Your task to perform on an android device: see sites visited before in the chrome app Image 0: 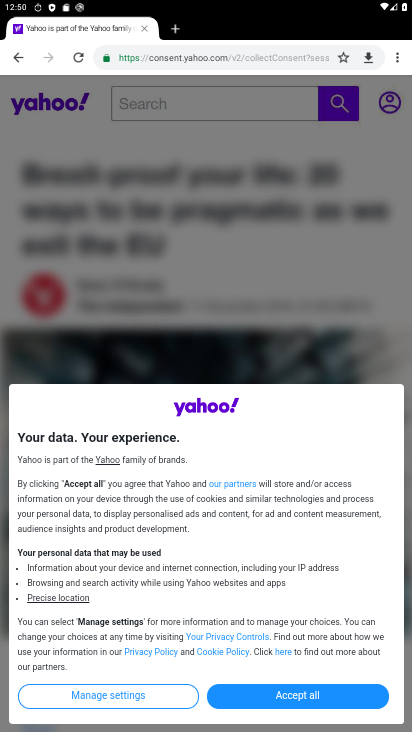
Step 0: press home button
Your task to perform on an android device: see sites visited before in the chrome app Image 1: 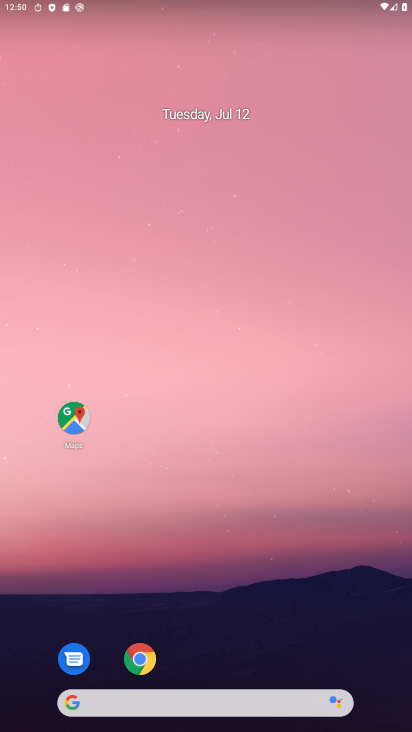
Step 1: drag from (213, 663) to (182, 194)
Your task to perform on an android device: see sites visited before in the chrome app Image 2: 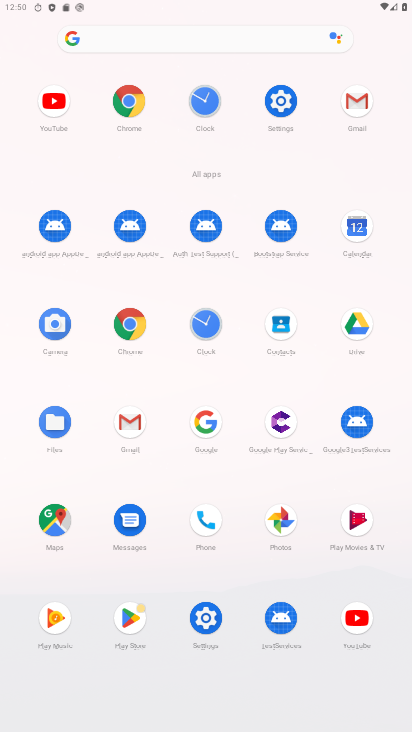
Step 2: click (136, 320)
Your task to perform on an android device: see sites visited before in the chrome app Image 3: 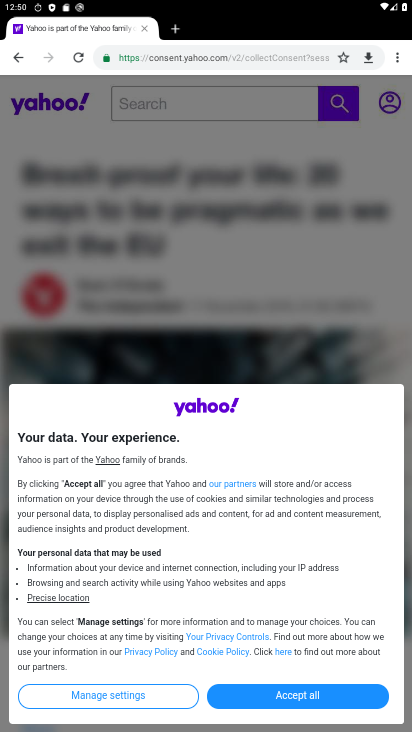
Step 3: task complete